Your task to perform on an android device: Open Reddit.com Image 0: 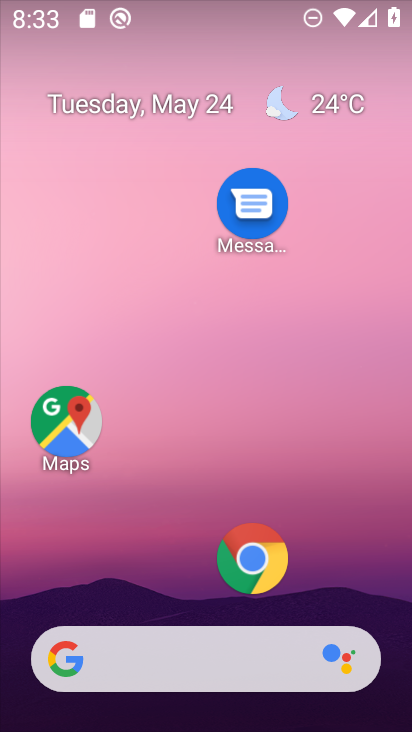
Step 0: click (248, 552)
Your task to perform on an android device: Open Reddit.com Image 1: 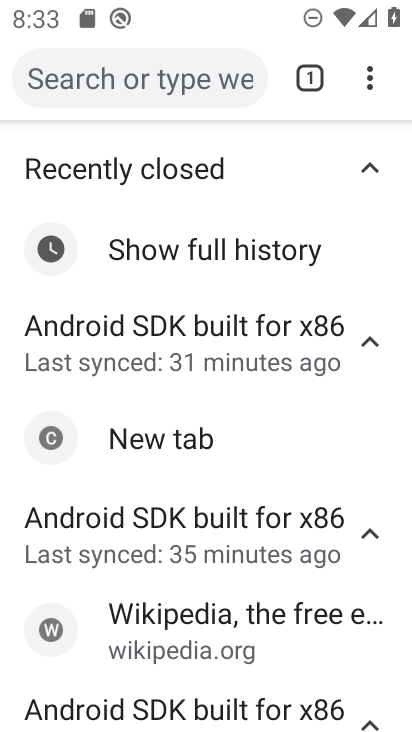
Step 1: click (234, 84)
Your task to perform on an android device: Open Reddit.com Image 2: 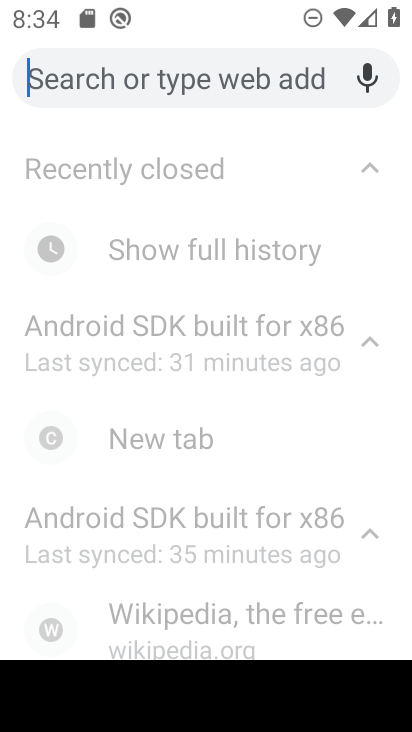
Step 2: type "Reddit.com"
Your task to perform on an android device: Open Reddit.com Image 3: 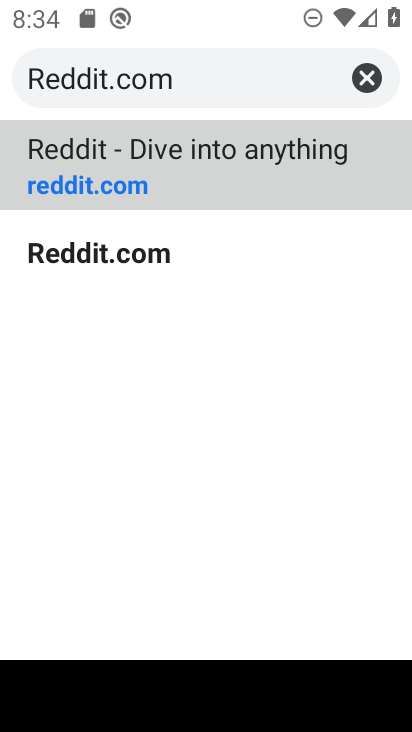
Step 3: click (136, 158)
Your task to perform on an android device: Open Reddit.com Image 4: 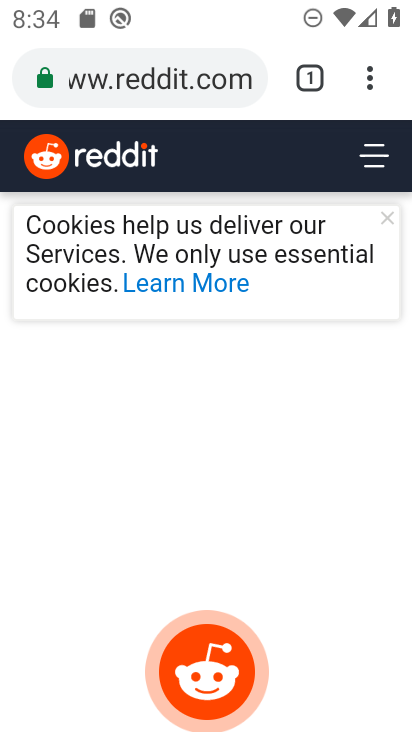
Step 4: task complete